Your task to perform on an android device: turn notification dots off Image 0: 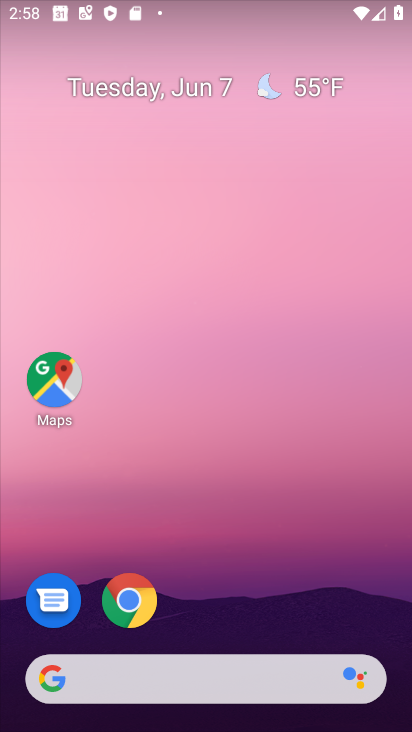
Step 0: drag from (202, 601) to (187, 0)
Your task to perform on an android device: turn notification dots off Image 1: 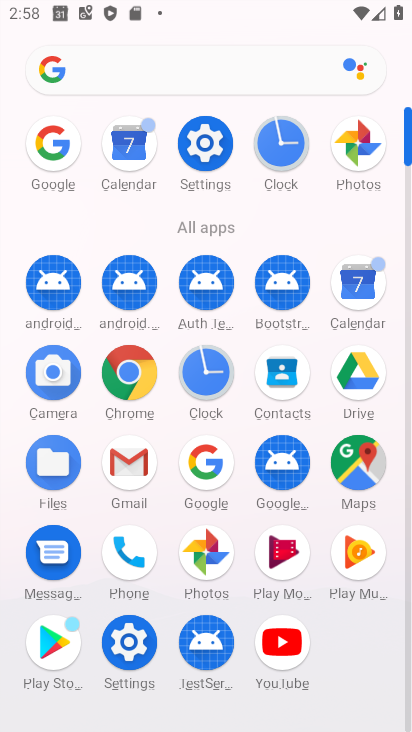
Step 1: click (138, 650)
Your task to perform on an android device: turn notification dots off Image 2: 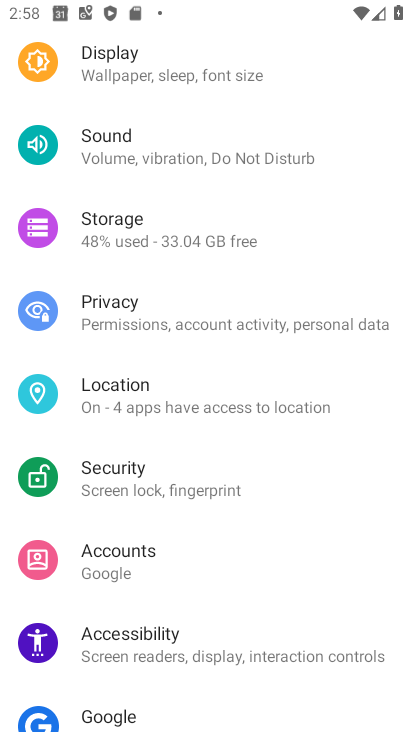
Step 2: drag from (156, 692) to (189, 499)
Your task to perform on an android device: turn notification dots off Image 3: 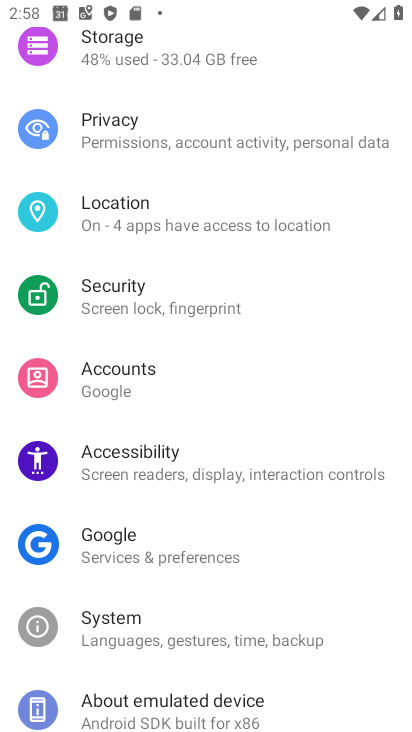
Step 3: drag from (193, 279) to (176, 402)
Your task to perform on an android device: turn notification dots off Image 4: 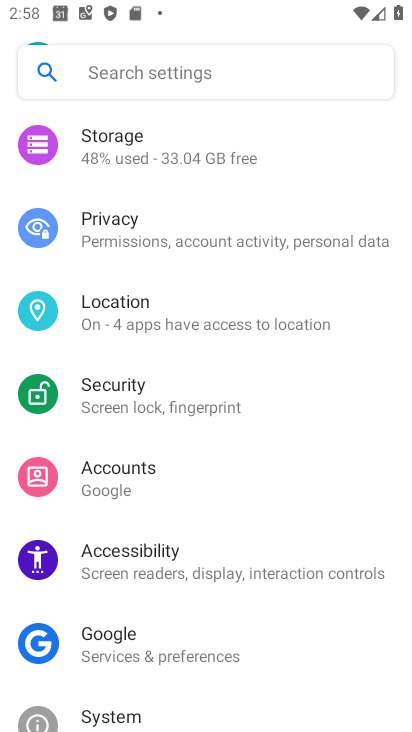
Step 4: drag from (127, 217) to (133, 319)
Your task to perform on an android device: turn notification dots off Image 5: 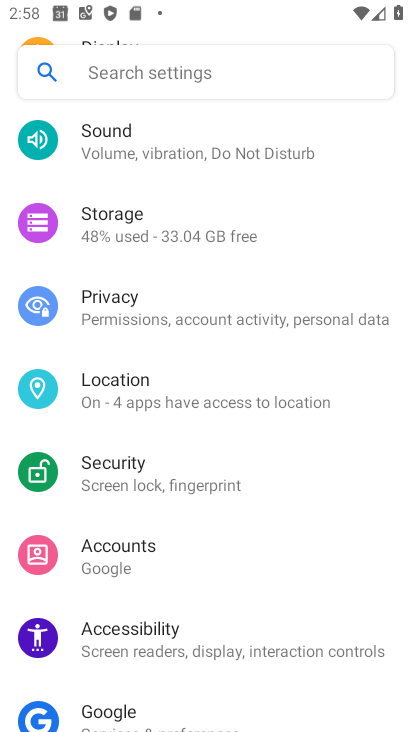
Step 5: drag from (154, 218) to (154, 380)
Your task to perform on an android device: turn notification dots off Image 6: 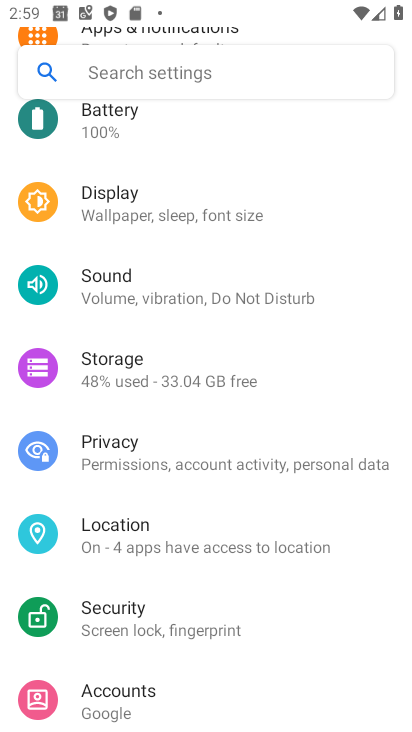
Step 6: drag from (173, 225) to (184, 321)
Your task to perform on an android device: turn notification dots off Image 7: 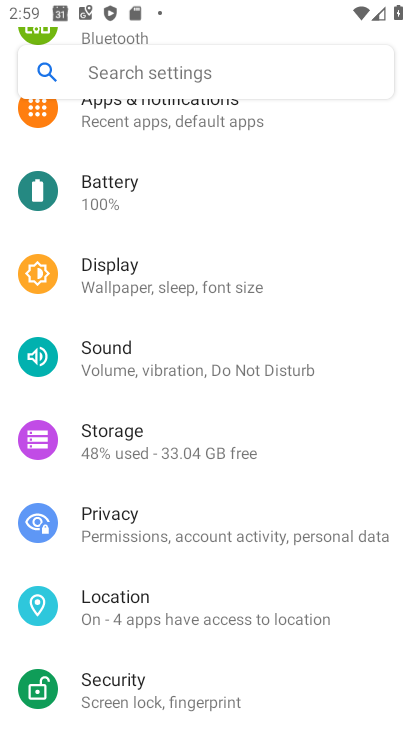
Step 7: click (151, 117)
Your task to perform on an android device: turn notification dots off Image 8: 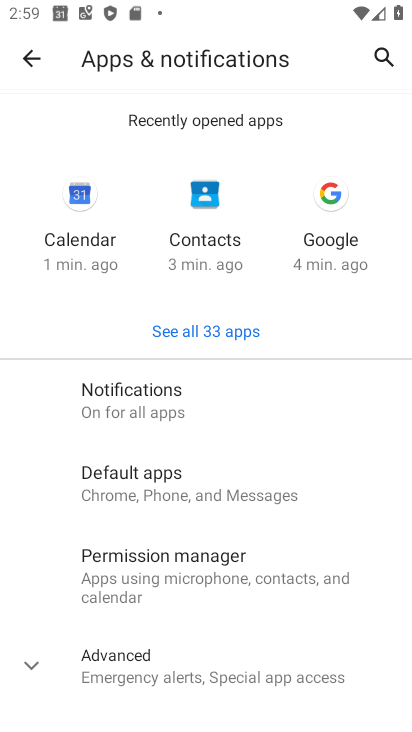
Step 8: click (163, 417)
Your task to perform on an android device: turn notification dots off Image 9: 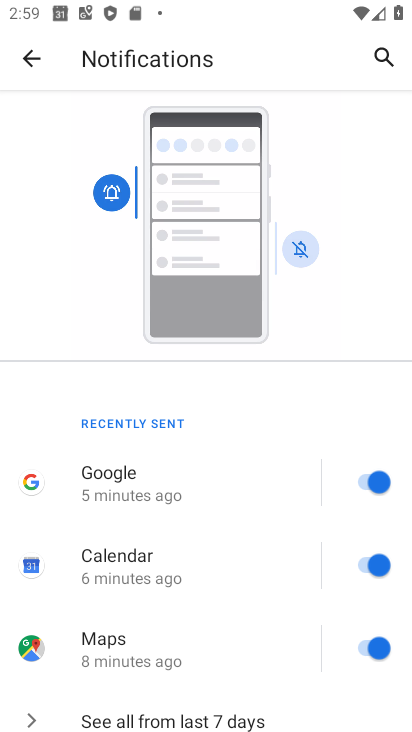
Step 9: drag from (184, 631) to (284, 340)
Your task to perform on an android device: turn notification dots off Image 10: 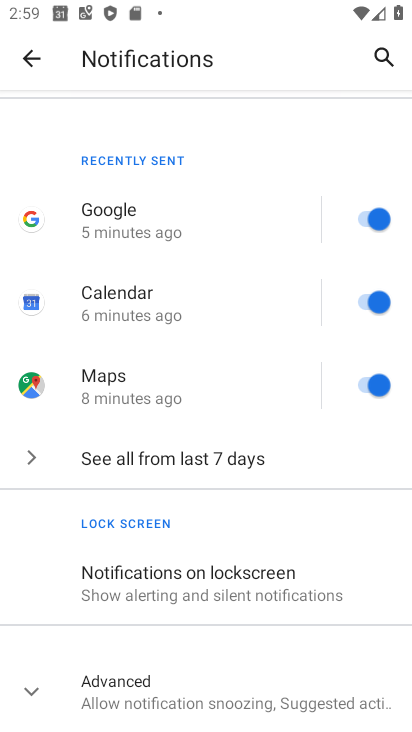
Step 10: click (139, 683)
Your task to perform on an android device: turn notification dots off Image 11: 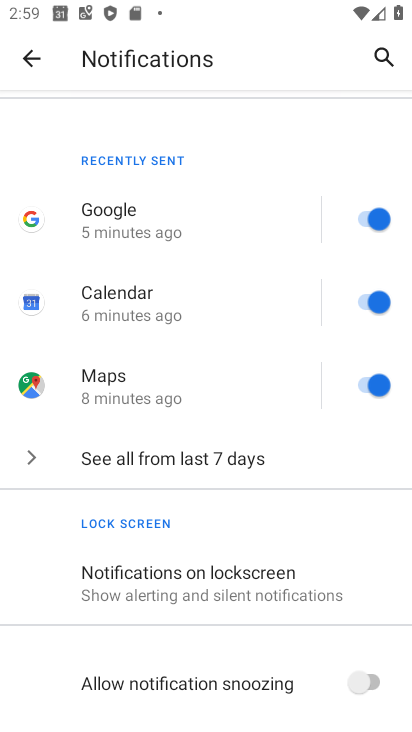
Step 11: task complete